Your task to perform on an android device: Go to internet settings Image 0: 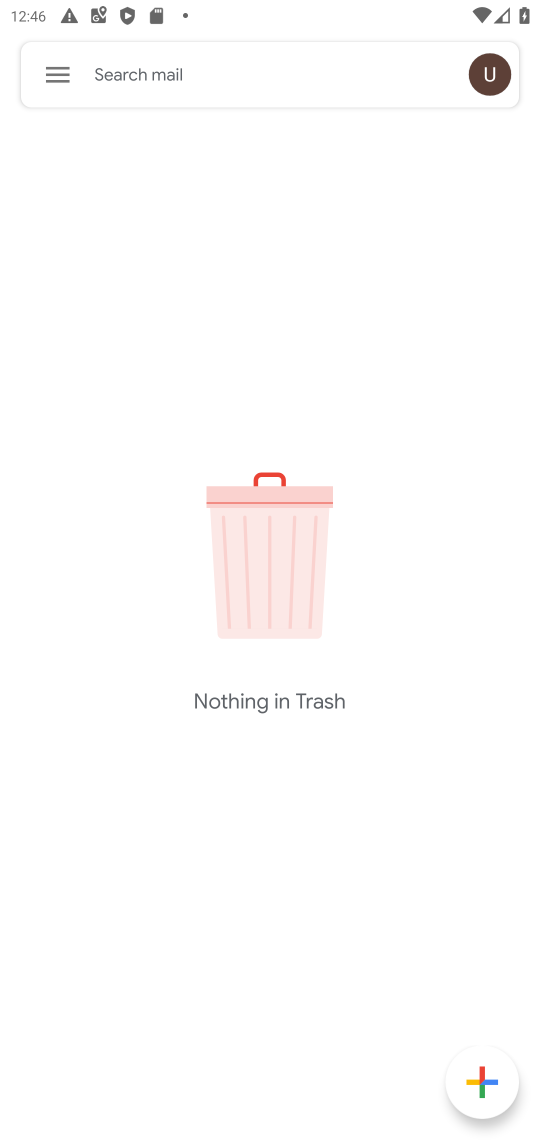
Step 0: press home button
Your task to perform on an android device: Go to internet settings Image 1: 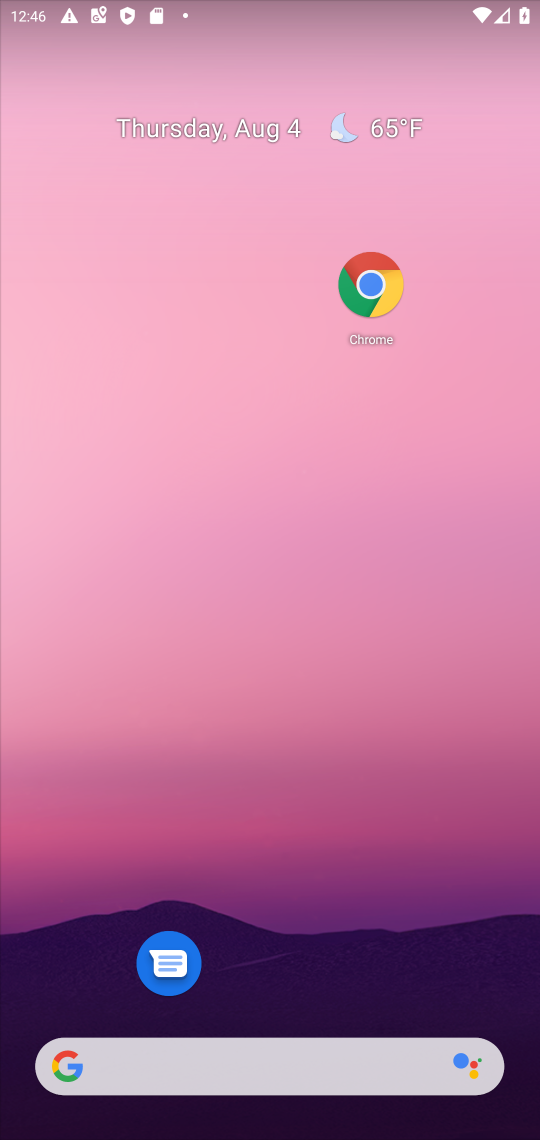
Step 1: drag from (214, 1018) to (225, 211)
Your task to perform on an android device: Go to internet settings Image 2: 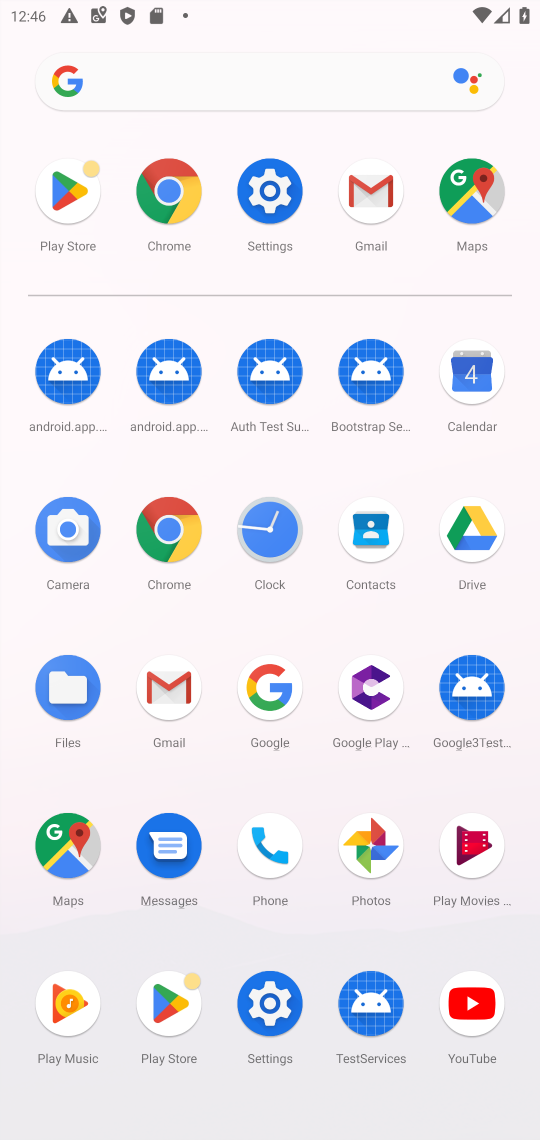
Step 2: click (272, 192)
Your task to perform on an android device: Go to internet settings Image 3: 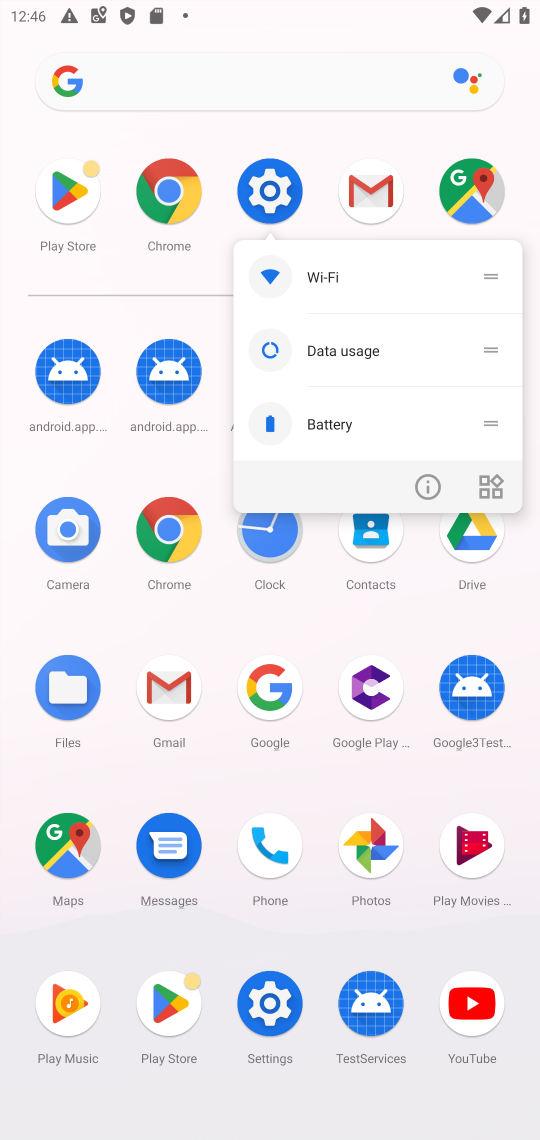
Step 3: click (272, 192)
Your task to perform on an android device: Go to internet settings Image 4: 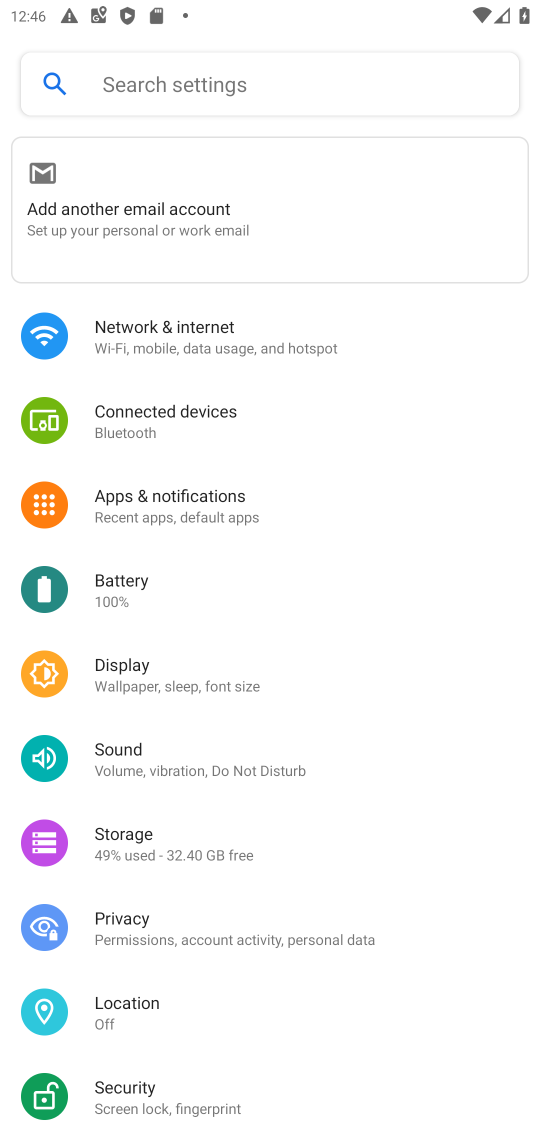
Step 4: click (176, 323)
Your task to perform on an android device: Go to internet settings Image 5: 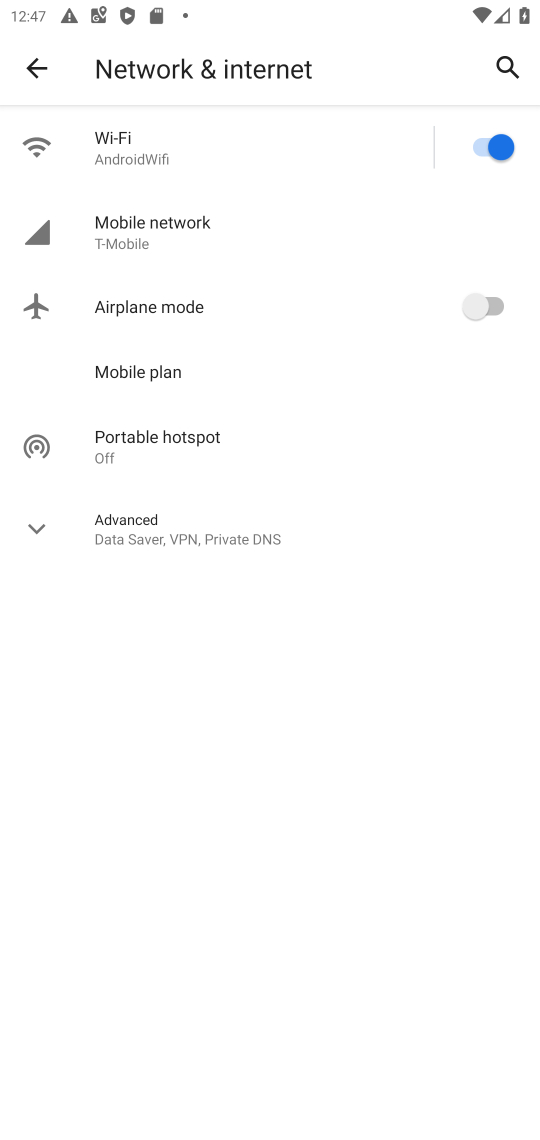
Step 5: task complete